Your task to perform on an android device: change timer sound Image 0: 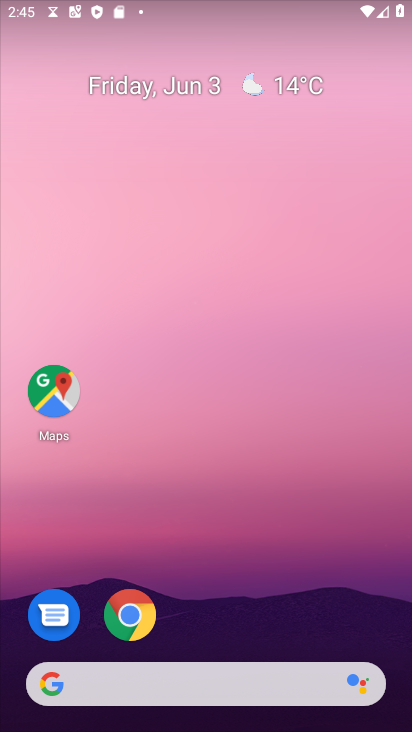
Step 0: press home button
Your task to perform on an android device: change timer sound Image 1: 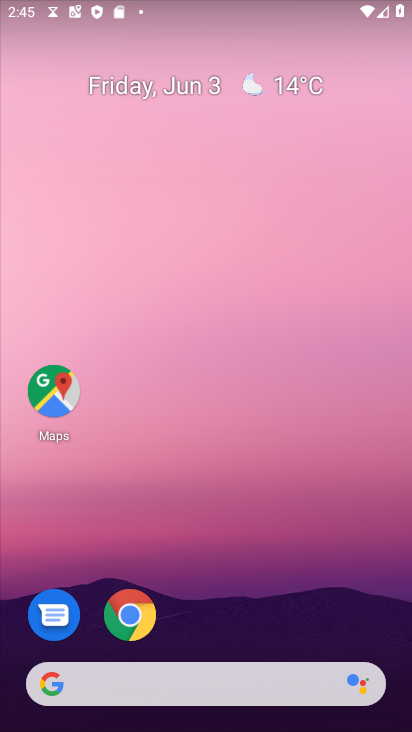
Step 1: drag from (306, 637) to (230, 67)
Your task to perform on an android device: change timer sound Image 2: 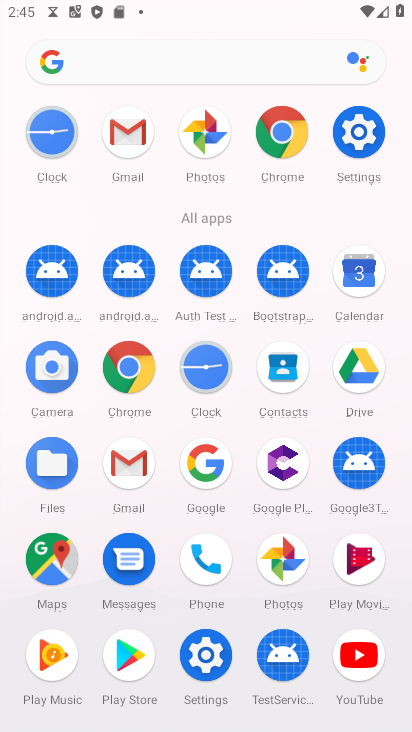
Step 2: click (210, 380)
Your task to perform on an android device: change timer sound Image 3: 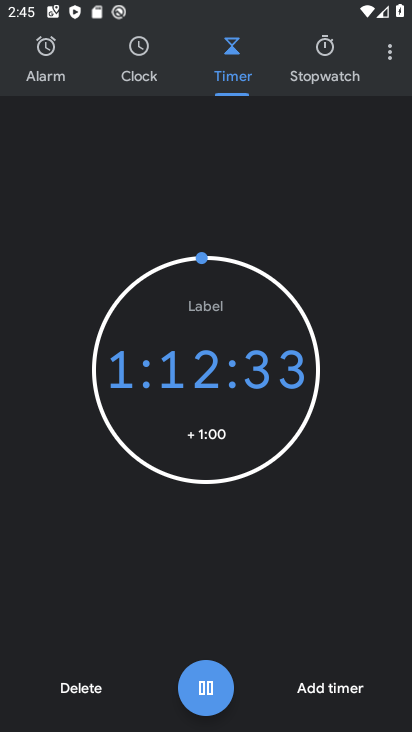
Step 3: click (393, 55)
Your task to perform on an android device: change timer sound Image 4: 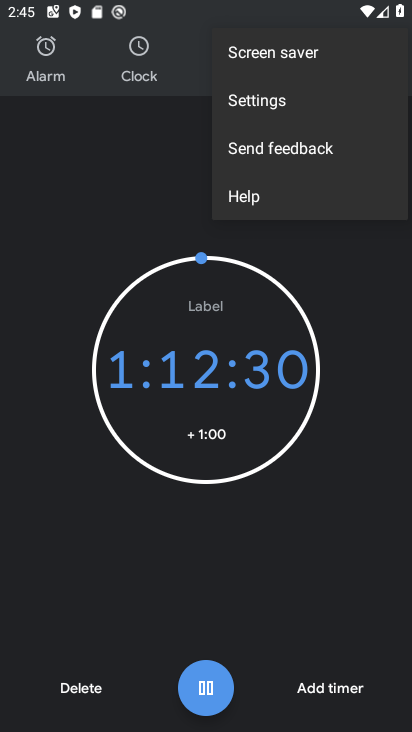
Step 4: click (283, 104)
Your task to perform on an android device: change timer sound Image 5: 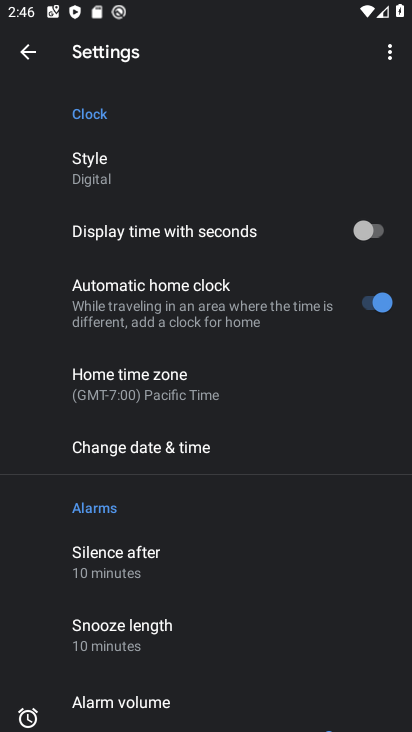
Step 5: drag from (199, 553) to (184, 142)
Your task to perform on an android device: change timer sound Image 6: 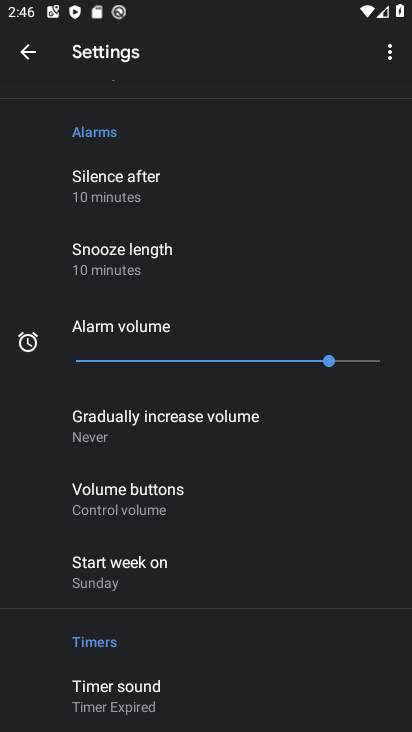
Step 6: click (100, 683)
Your task to perform on an android device: change timer sound Image 7: 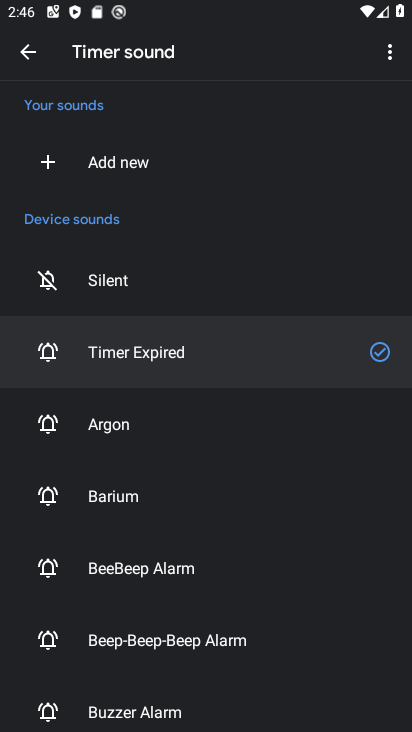
Step 7: click (131, 571)
Your task to perform on an android device: change timer sound Image 8: 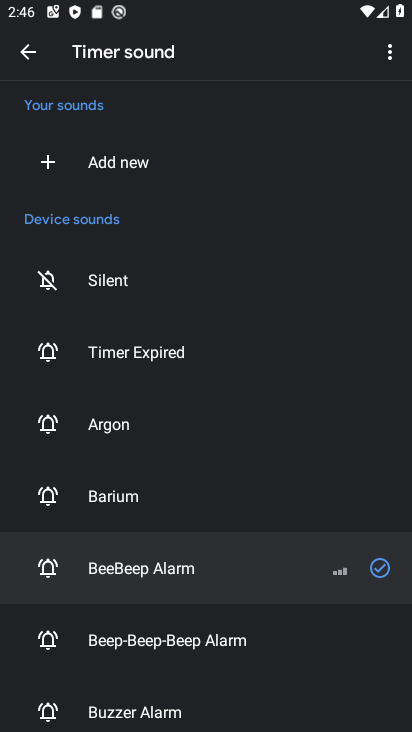
Step 8: task complete